Your task to perform on an android device: Go to Amazon Image 0: 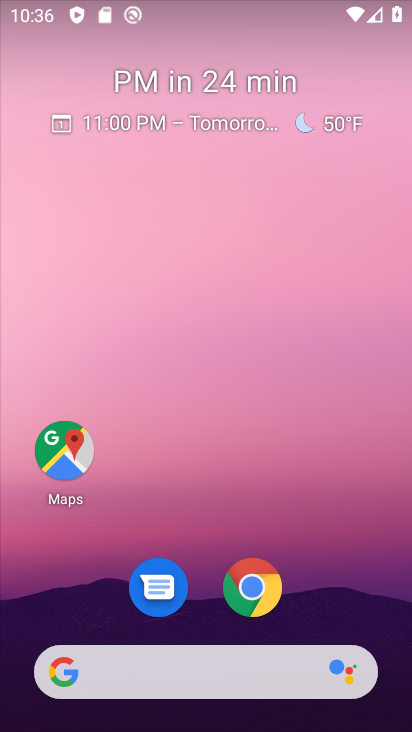
Step 0: click (249, 601)
Your task to perform on an android device: Go to Amazon Image 1: 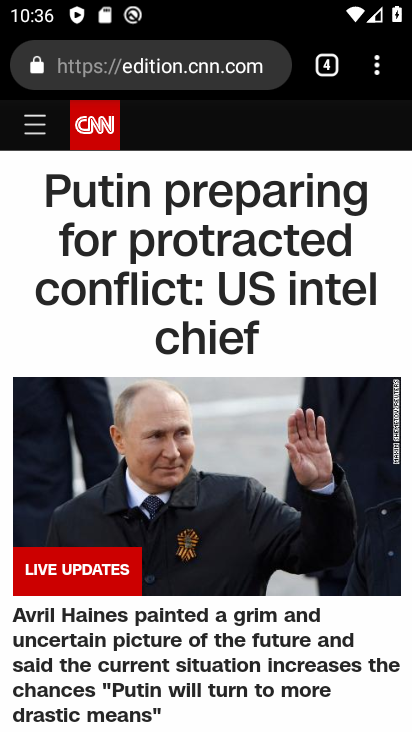
Step 1: click (326, 65)
Your task to perform on an android device: Go to Amazon Image 2: 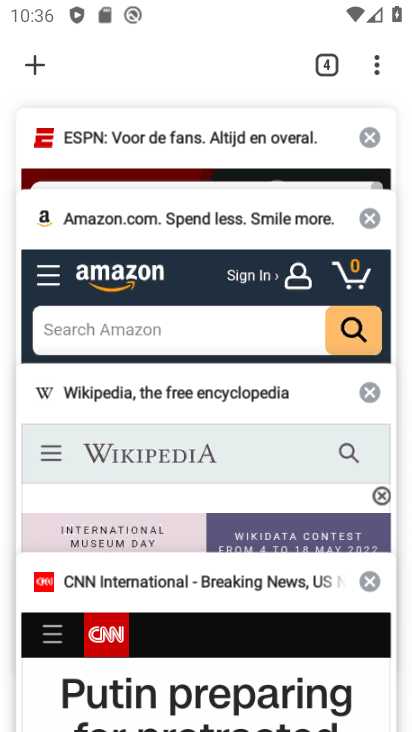
Step 2: click (34, 68)
Your task to perform on an android device: Go to Amazon Image 3: 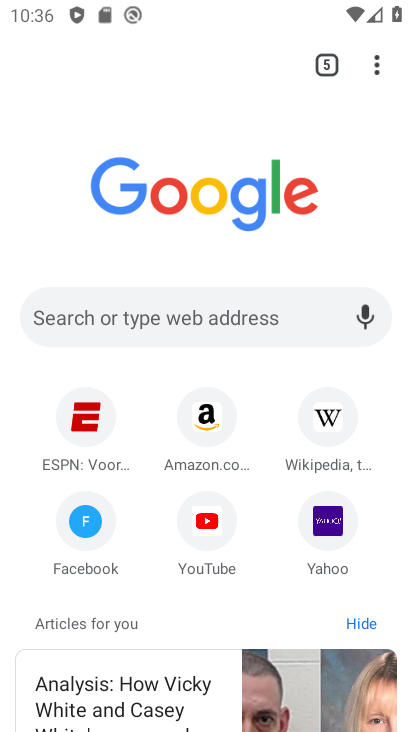
Step 3: click (194, 411)
Your task to perform on an android device: Go to Amazon Image 4: 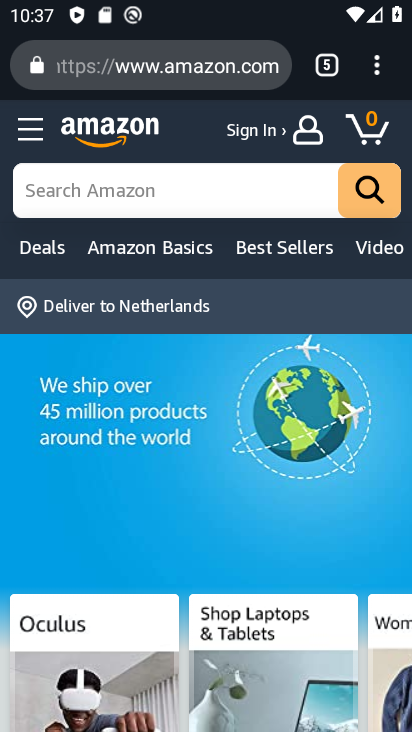
Step 4: task complete